Your task to perform on an android device: Show me popular games on the Play Store Image 0: 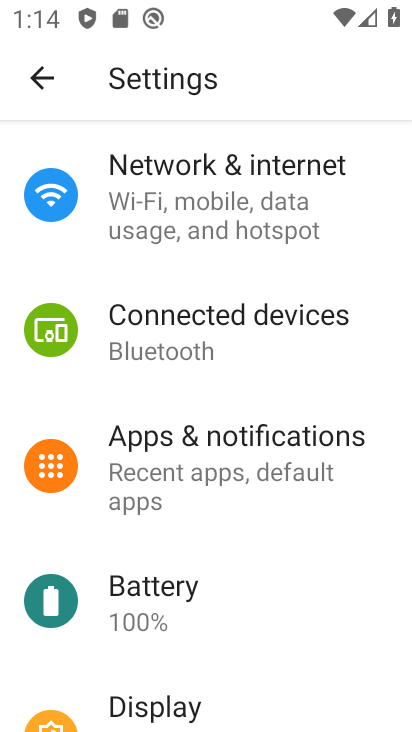
Step 0: press home button
Your task to perform on an android device: Show me popular games on the Play Store Image 1: 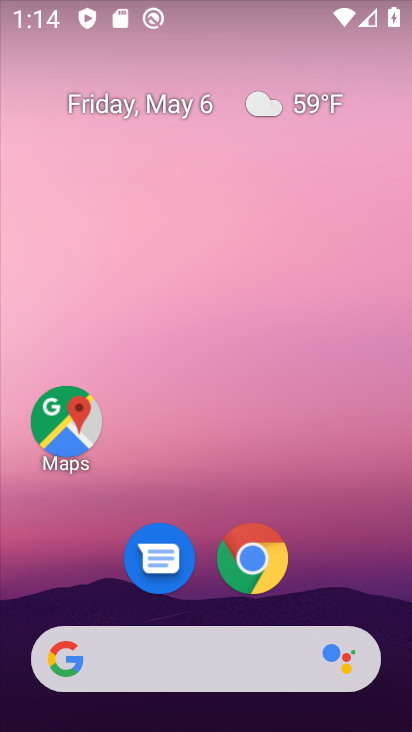
Step 1: drag from (206, 728) to (205, 83)
Your task to perform on an android device: Show me popular games on the Play Store Image 2: 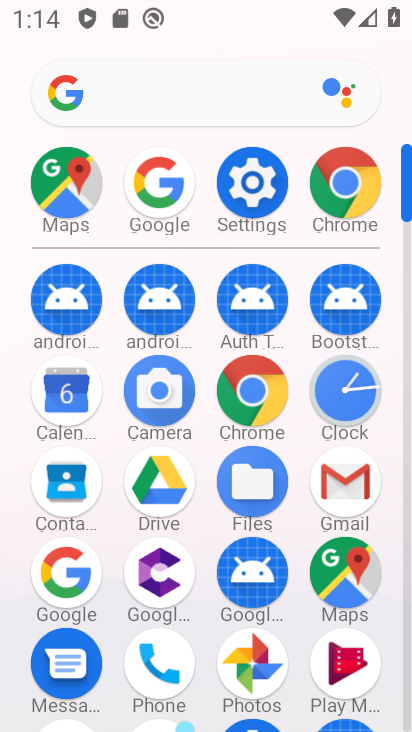
Step 2: drag from (200, 577) to (199, 363)
Your task to perform on an android device: Show me popular games on the Play Store Image 3: 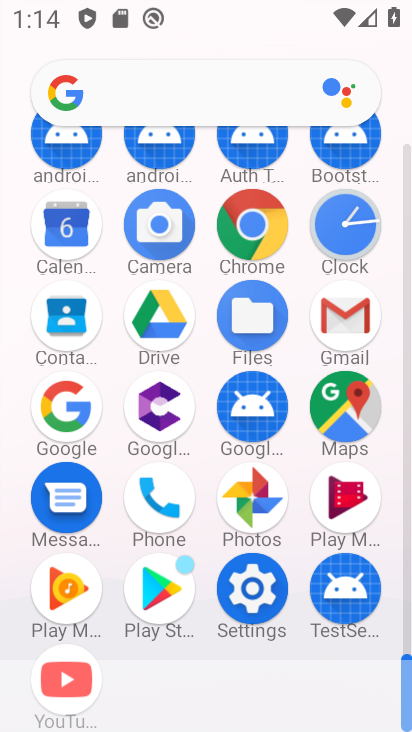
Step 3: click (144, 585)
Your task to perform on an android device: Show me popular games on the Play Store Image 4: 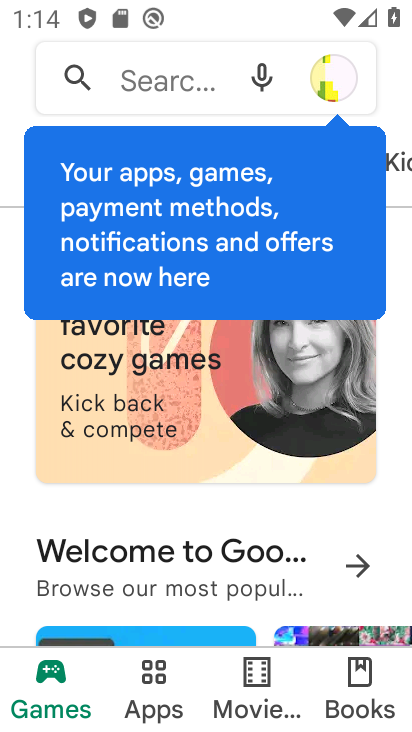
Step 4: drag from (143, 616) to (156, 477)
Your task to perform on an android device: Show me popular games on the Play Store Image 5: 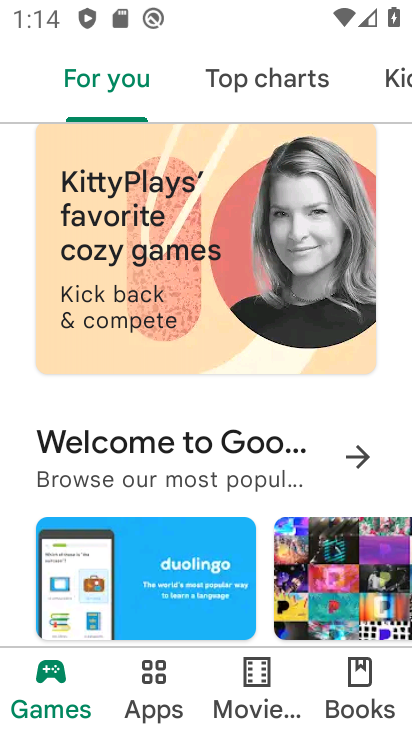
Step 5: drag from (204, 609) to (207, 403)
Your task to perform on an android device: Show me popular games on the Play Store Image 6: 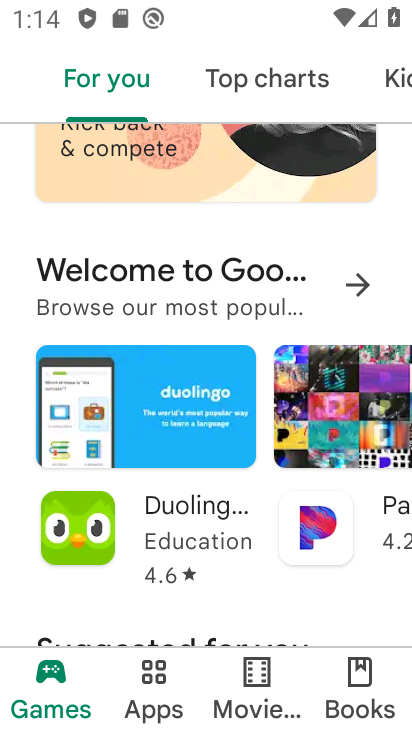
Step 6: drag from (270, 629) to (315, 235)
Your task to perform on an android device: Show me popular games on the Play Store Image 7: 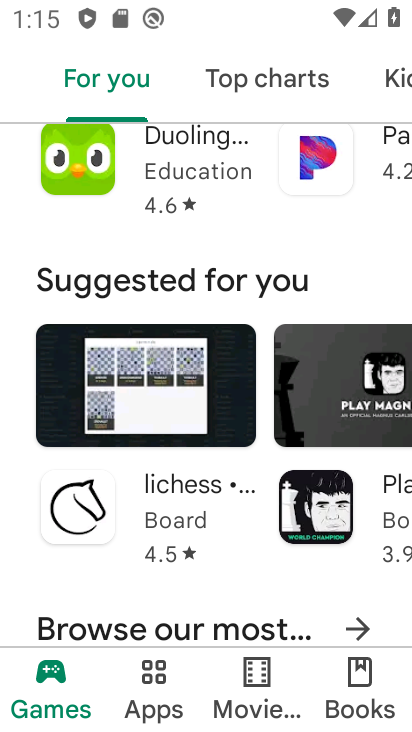
Step 7: drag from (276, 592) to (275, 397)
Your task to perform on an android device: Show me popular games on the Play Store Image 8: 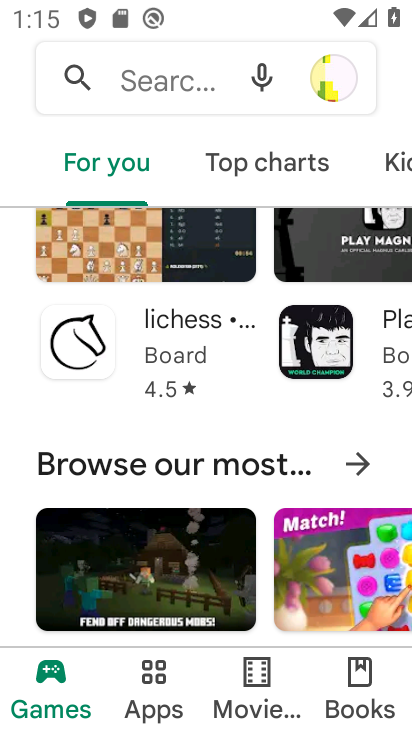
Step 8: click (350, 462)
Your task to perform on an android device: Show me popular games on the Play Store Image 9: 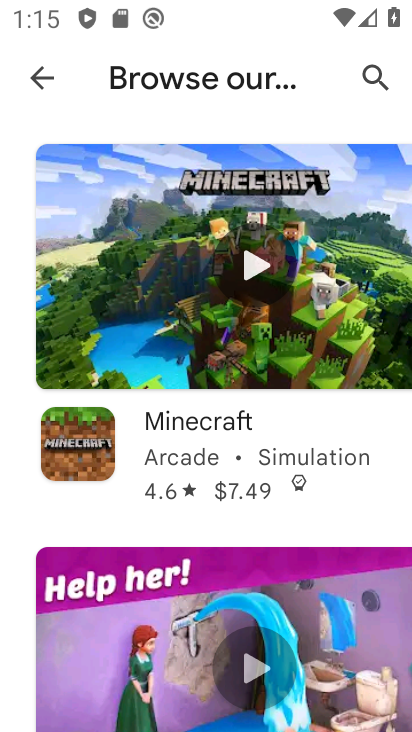
Step 9: task complete